Your task to perform on an android device: Open Youtube and go to "Your channel" Image 0: 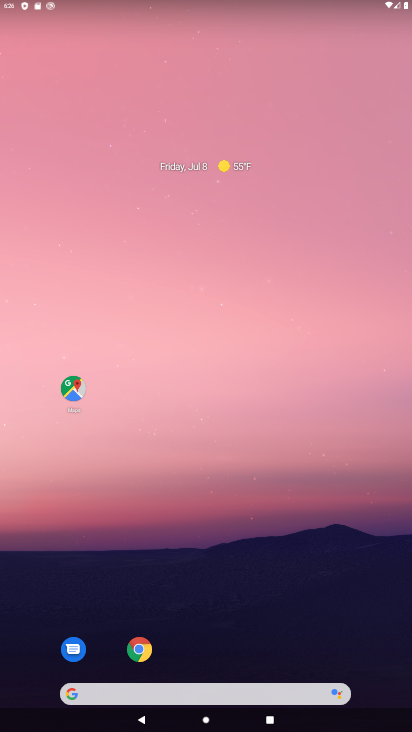
Step 0: drag from (202, 667) to (221, 98)
Your task to perform on an android device: Open Youtube and go to "Your channel" Image 1: 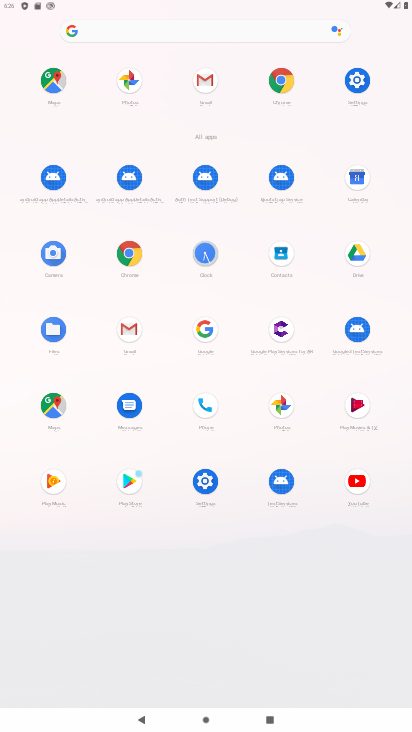
Step 1: click (350, 486)
Your task to perform on an android device: Open Youtube and go to "Your channel" Image 2: 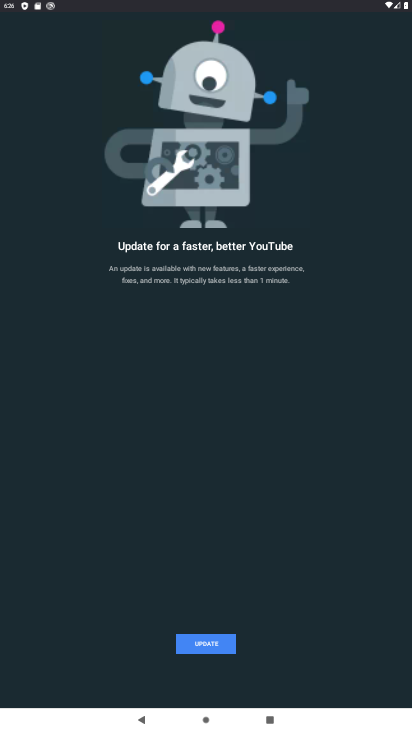
Step 2: click (218, 643)
Your task to perform on an android device: Open Youtube and go to "Your channel" Image 3: 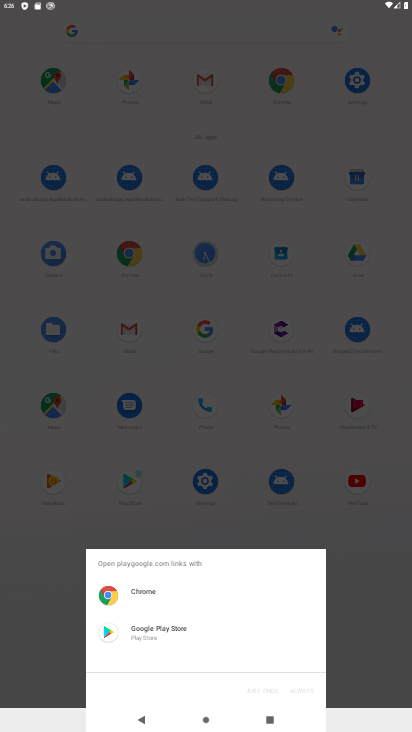
Step 3: click (183, 630)
Your task to perform on an android device: Open Youtube and go to "Your channel" Image 4: 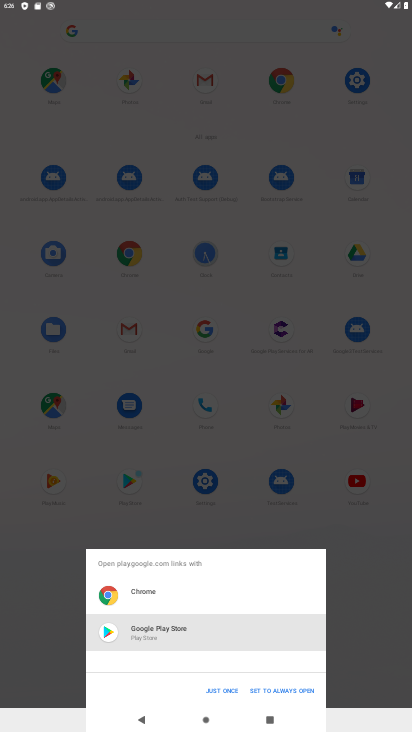
Step 4: click (225, 690)
Your task to perform on an android device: Open Youtube and go to "Your channel" Image 5: 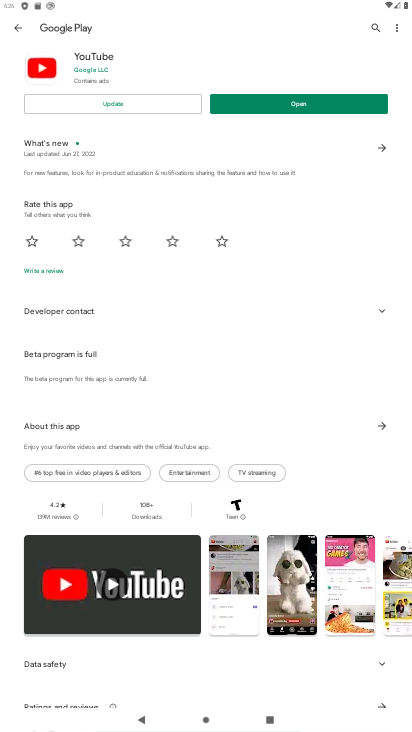
Step 5: click (132, 101)
Your task to perform on an android device: Open Youtube and go to "Your channel" Image 6: 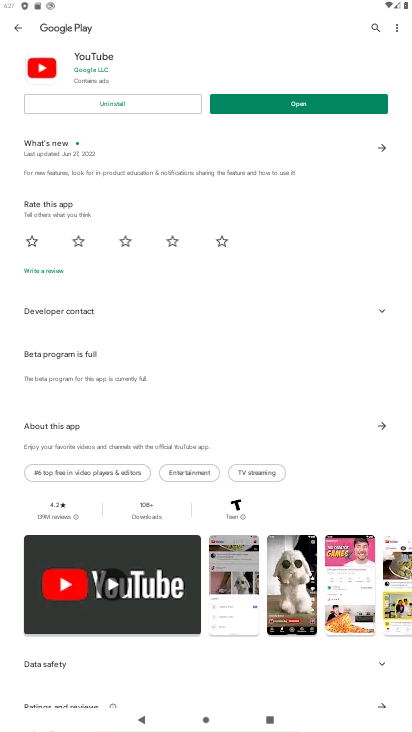
Step 6: click (279, 97)
Your task to perform on an android device: Open Youtube and go to "Your channel" Image 7: 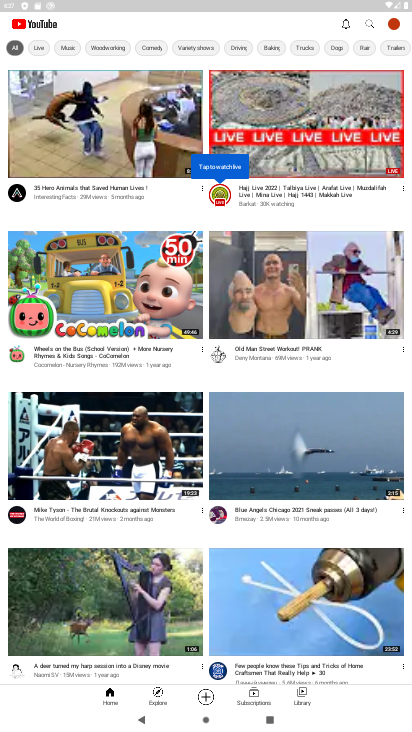
Step 7: click (389, 17)
Your task to perform on an android device: Open Youtube and go to "Your channel" Image 8: 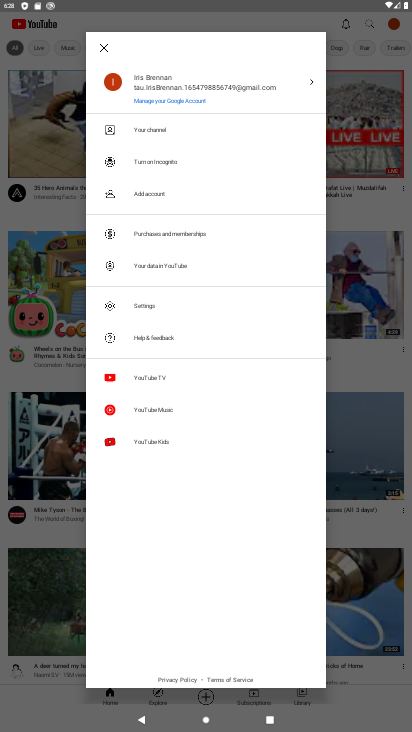
Step 8: click (150, 132)
Your task to perform on an android device: Open Youtube and go to "Your channel" Image 9: 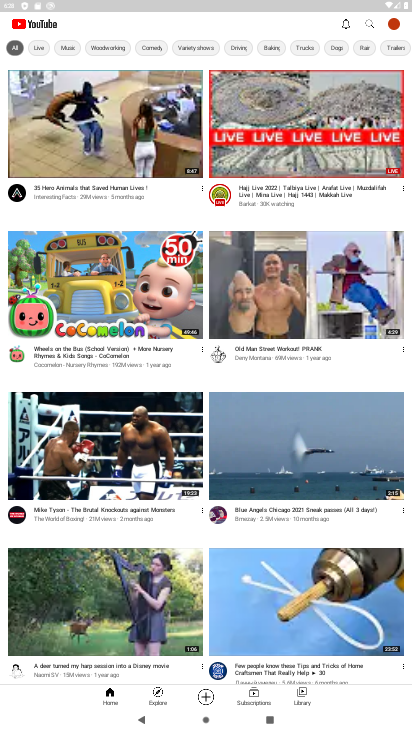
Step 9: task complete